Your task to perform on an android device: Go to eBay Image 0: 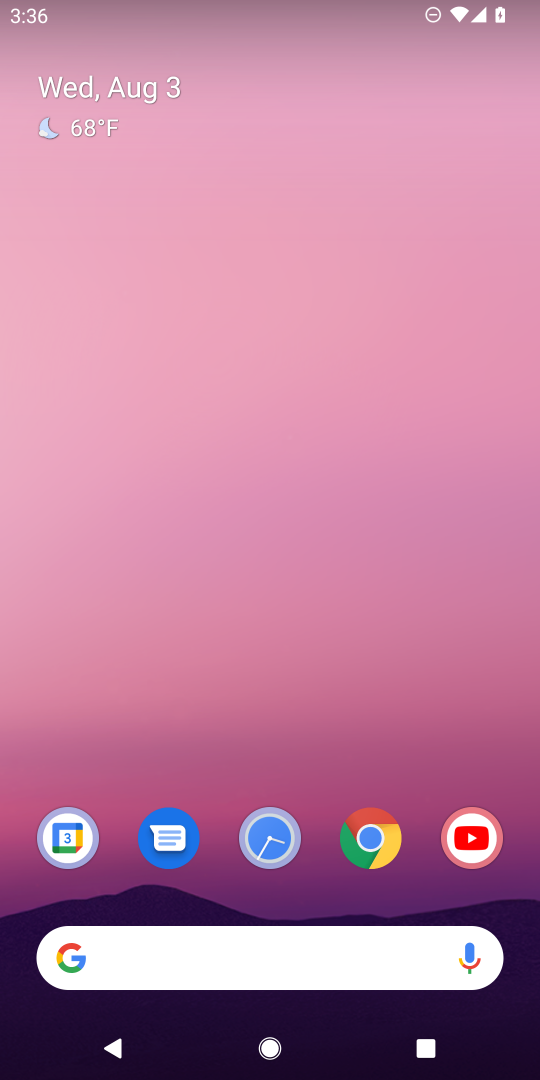
Step 0: click (370, 845)
Your task to perform on an android device: Go to eBay Image 1: 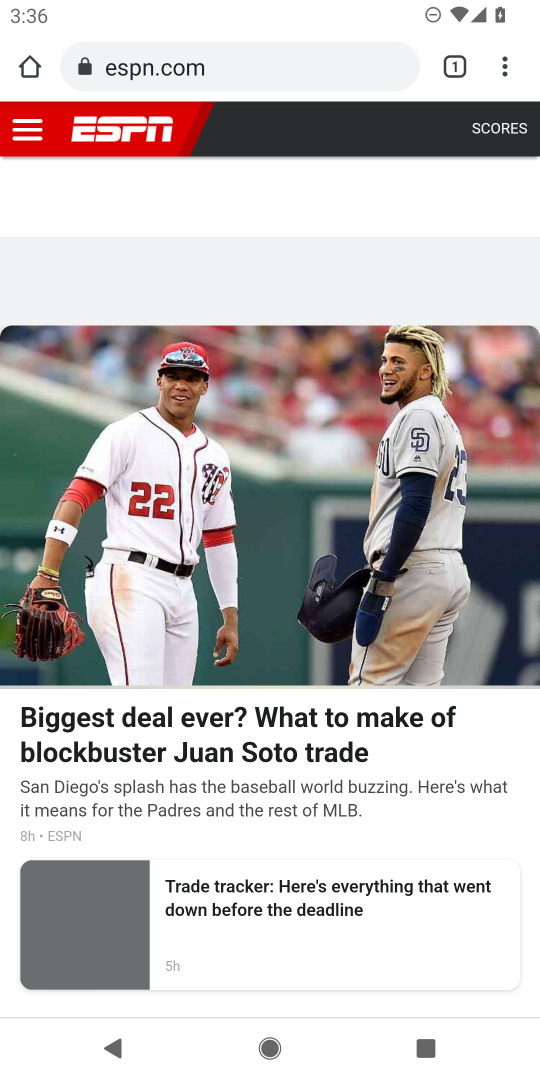
Step 1: click (217, 62)
Your task to perform on an android device: Go to eBay Image 2: 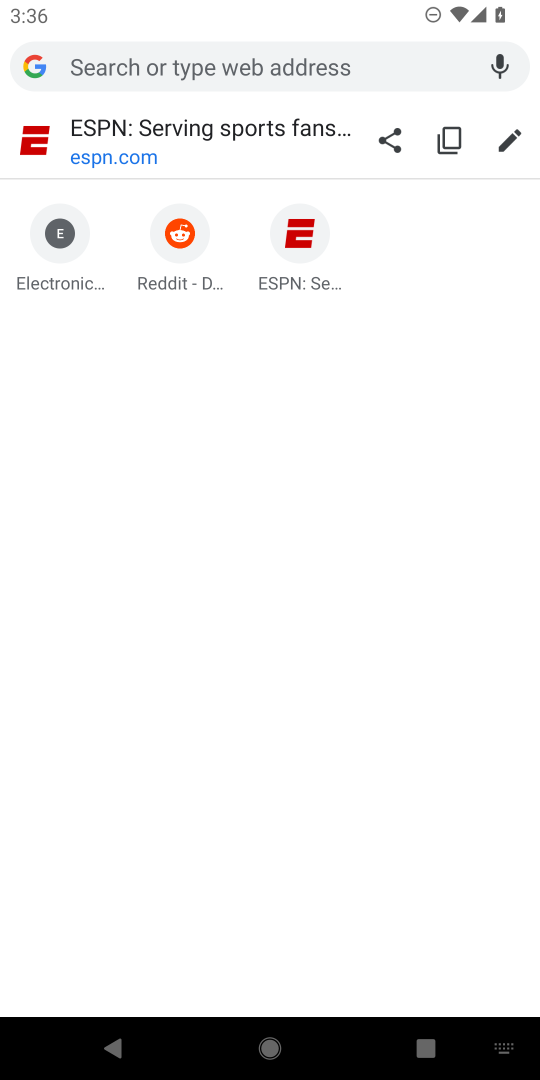
Step 2: type "ebay"
Your task to perform on an android device: Go to eBay Image 3: 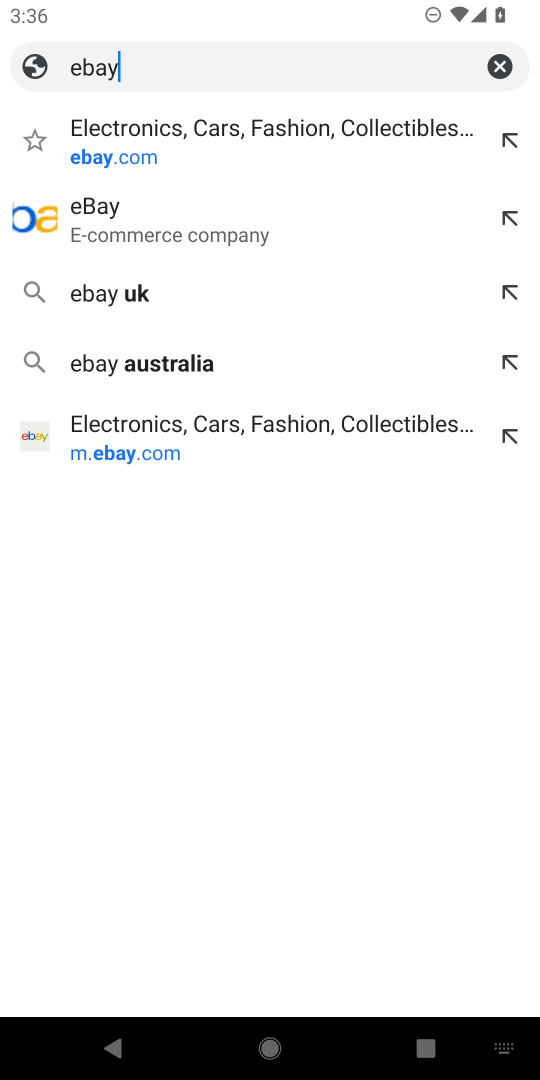
Step 3: click (150, 130)
Your task to perform on an android device: Go to eBay Image 4: 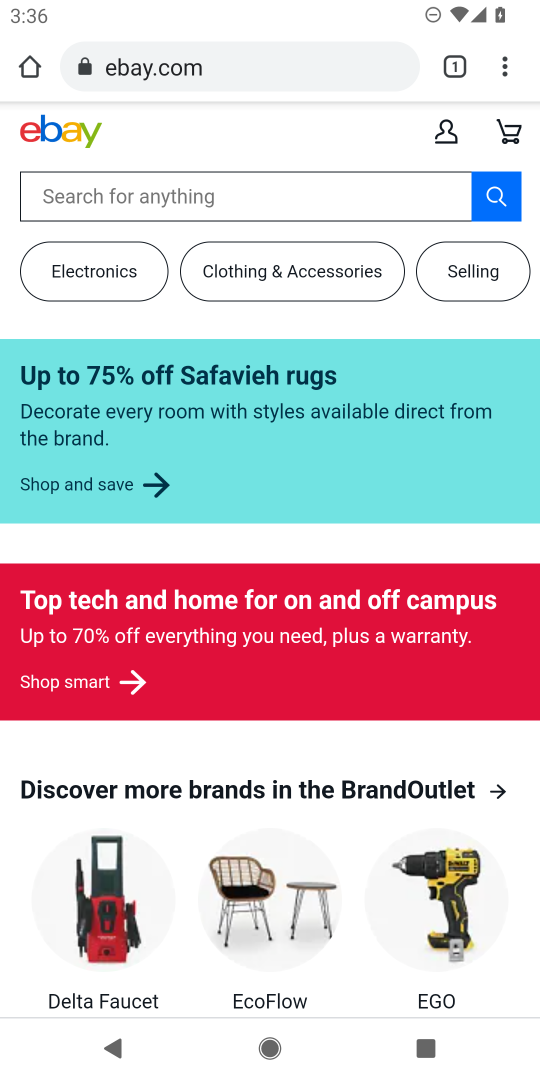
Step 4: task complete